Your task to perform on an android device: toggle location history Image 0: 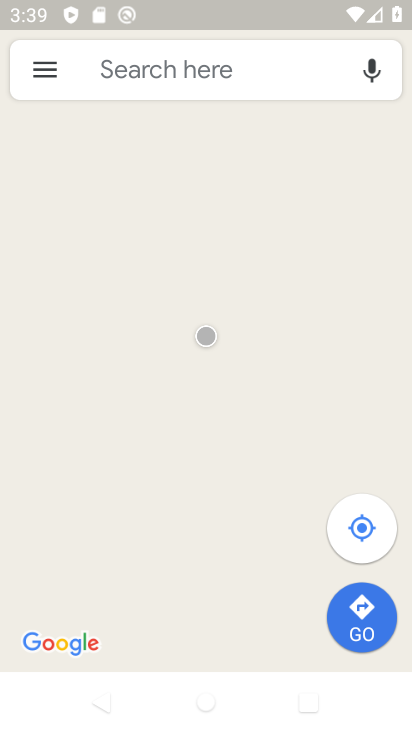
Step 0: click (53, 77)
Your task to perform on an android device: toggle location history Image 1: 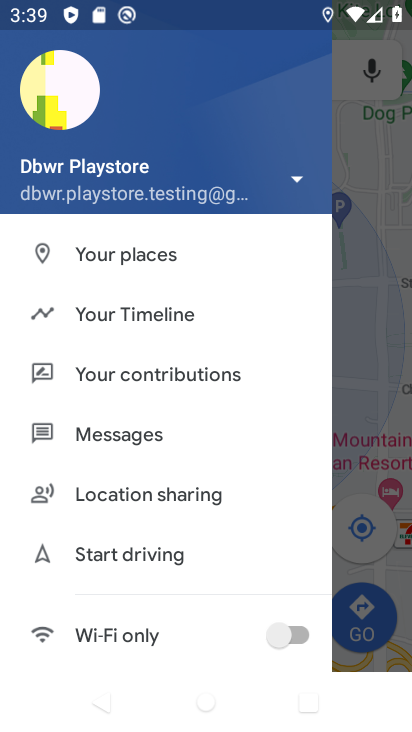
Step 1: click (170, 325)
Your task to perform on an android device: toggle location history Image 2: 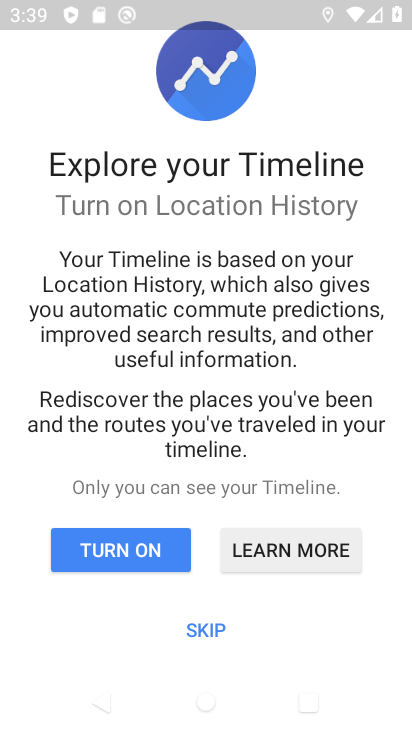
Step 2: click (224, 619)
Your task to perform on an android device: toggle location history Image 3: 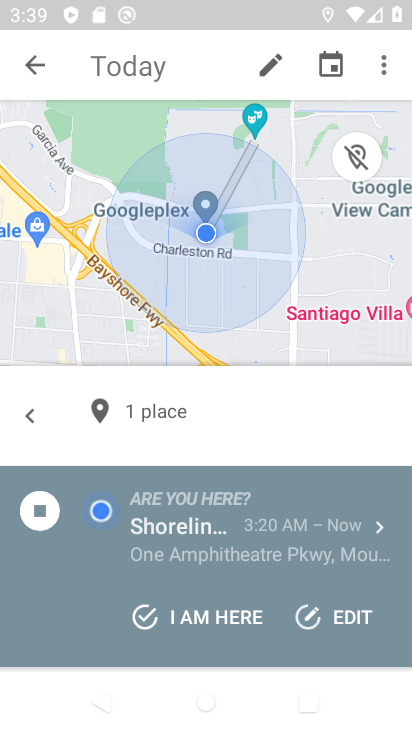
Step 3: click (386, 58)
Your task to perform on an android device: toggle location history Image 4: 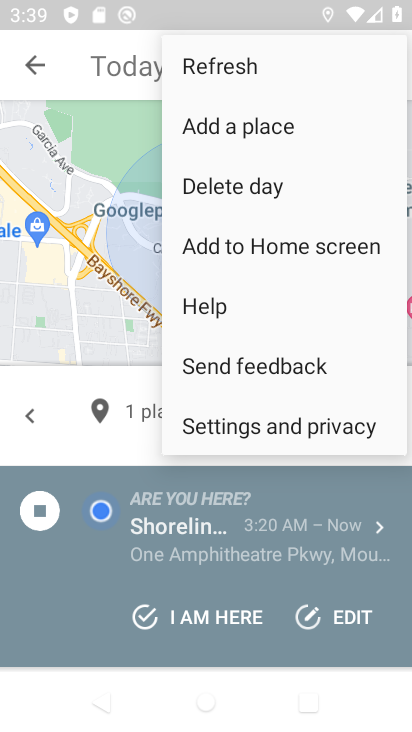
Step 4: click (325, 424)
Your task to perform on an android device: toggle location history Image 5: 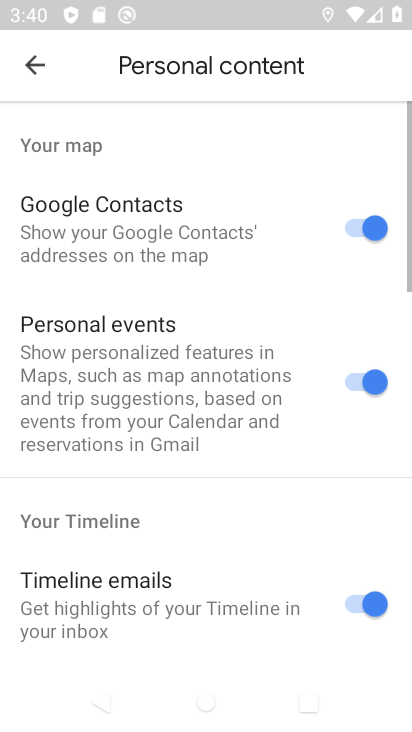
Step 5: drag from (158, 583) to (28, 23)
Your task to perform on an android device: toggle location history Image 6: 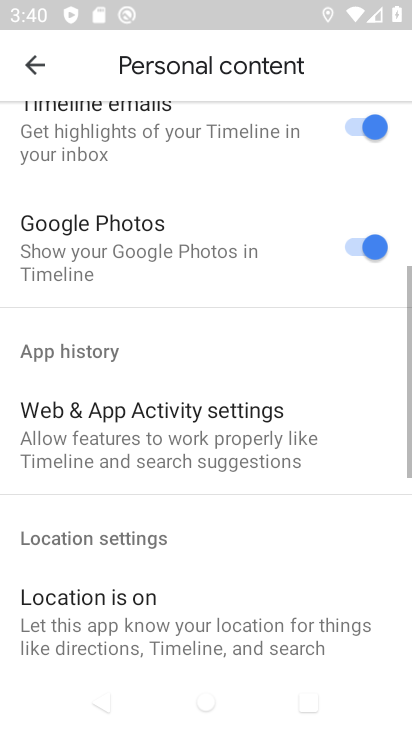
Step 6: drag from (150, 328) to (101, 98)
Your task to perform on an android device: toggle location history Image 7: 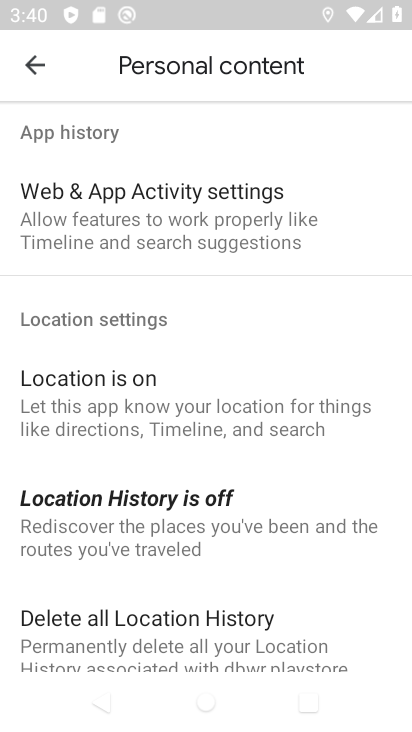
Step 7: click (132, 517)
Your task to perform on an android device: toggle location history Image 8: 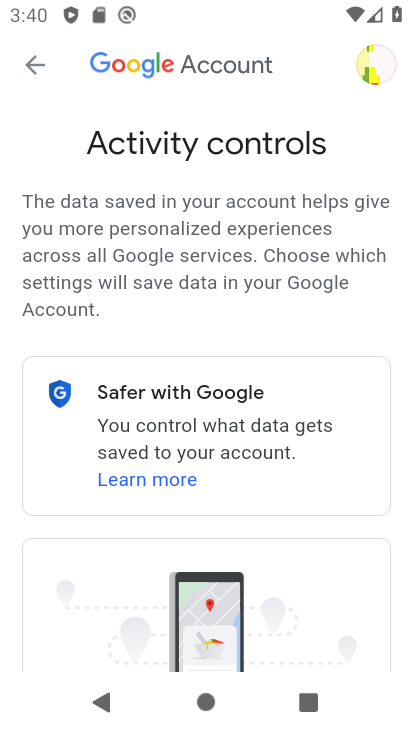
Step 8: drag from (208, 536) to (123, 195)
Your task to perform on an android device: toggle location history Image 9: 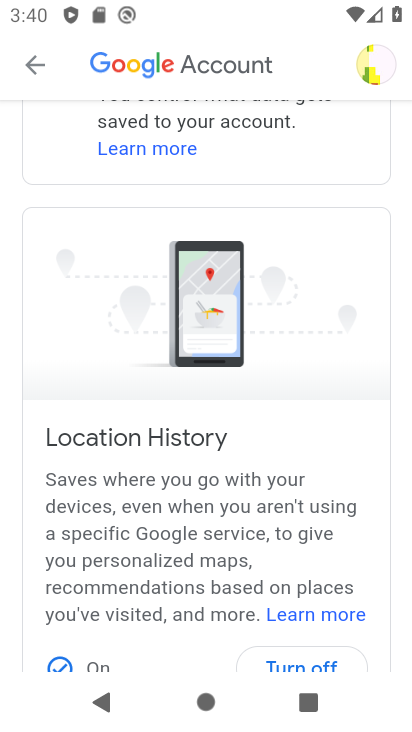
Step 9: drag from (185, 549) to (184, 139)
Your task to perform on an android device: toggle location history Image 10: 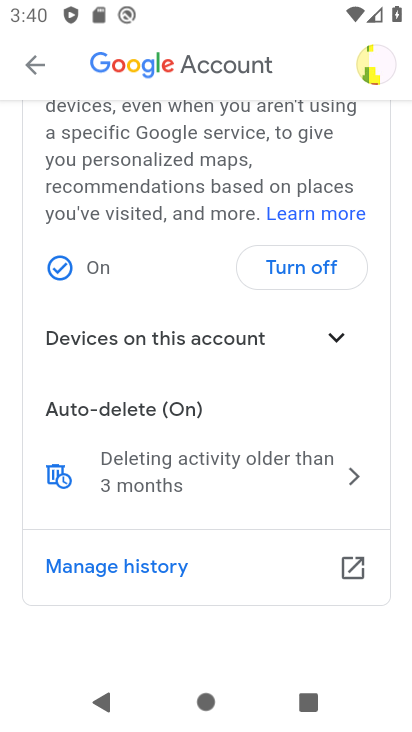
Step 10: click (305, 260)
Your task to perform on an android device: toggle location history Image 11: 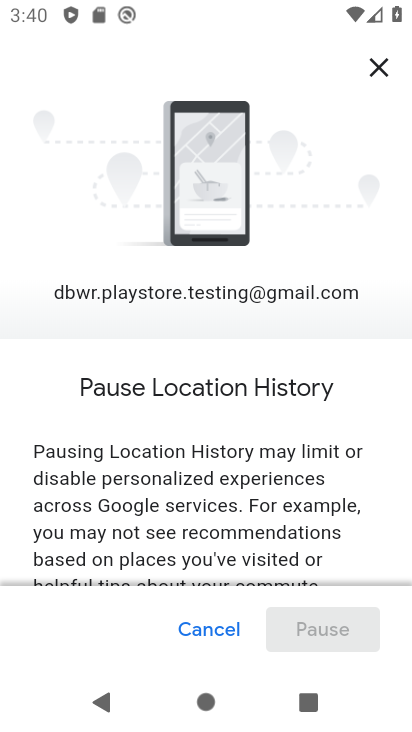
Step 11: drag from (214, 487) to (235, 15)
Your task to perform on an android device: toggle location history Image 12: 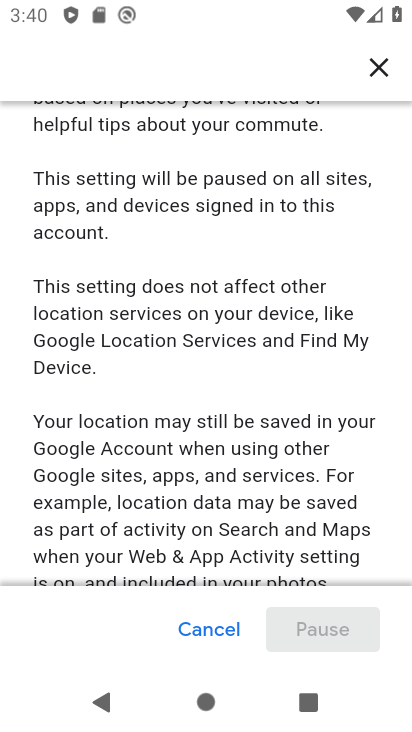
Step 12: drag from (336, 518) to (196, 138)
Your task to perform on an android device: toggle location history Image 13: 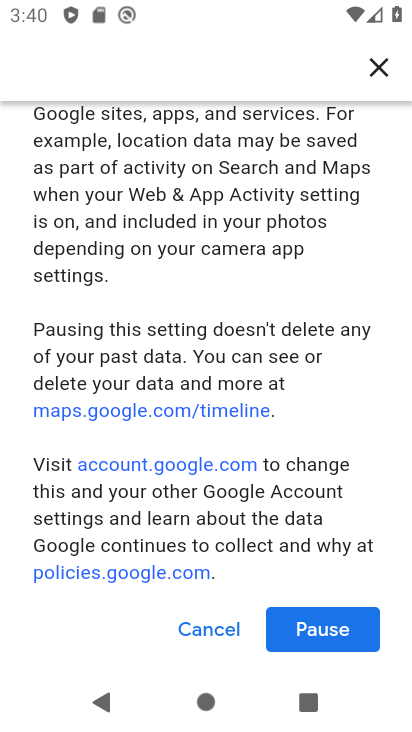
Step 13: click (354, 630)
Your task to perform on an android device: toggle location history Image 14: 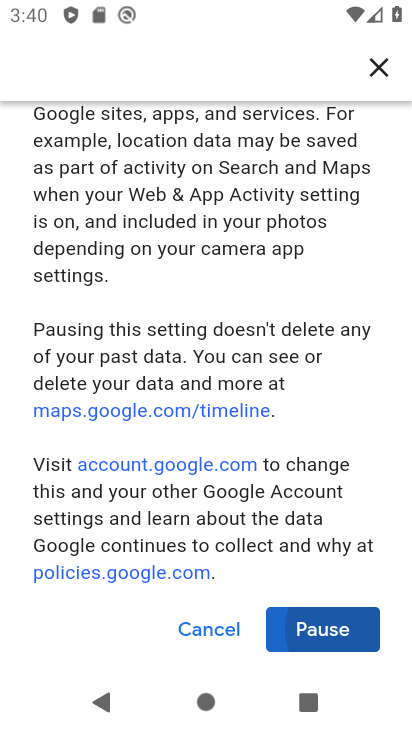
Step 14: click (354, 635)
Your task to perform on an android device: toggle location history Image 15: 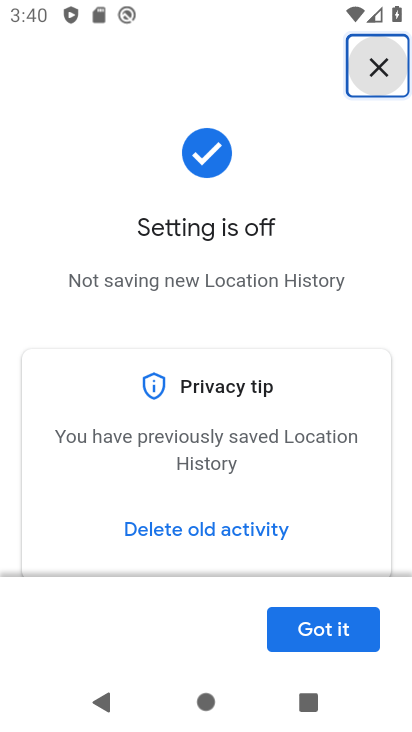
Step 15: task complete